Your task to perform on an android device: turn vacation reply on in the gmail app Image 0: 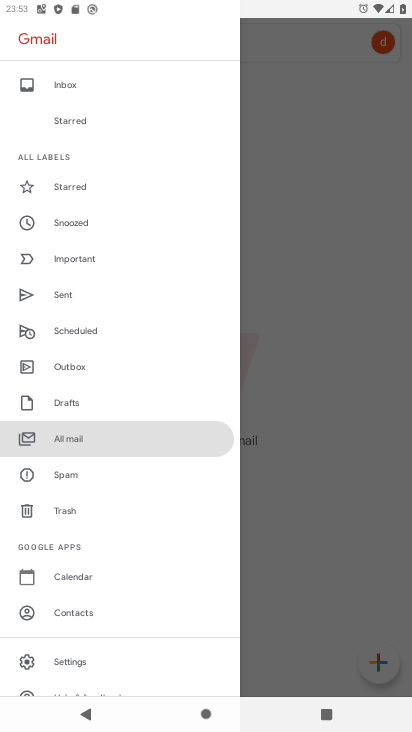
Step 0: press home button
Your task to perform on an android device: turn vacation reply on in the gmail app Image 1: 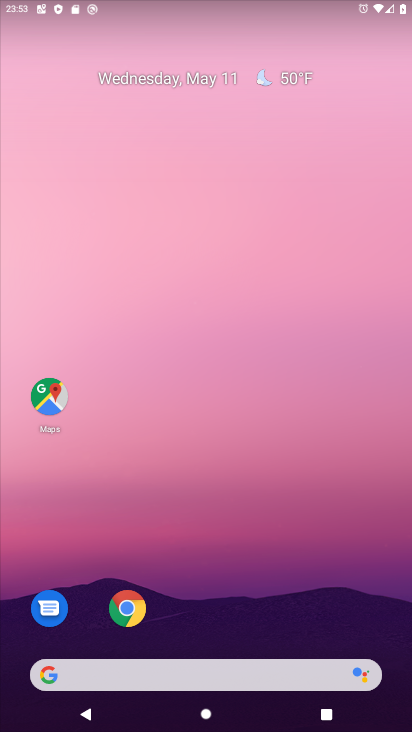
Step 1: drag from (203, 544) to (170, 6)
Your task to perform on an android device: turn vacation reply on in the gmail app Image 2: 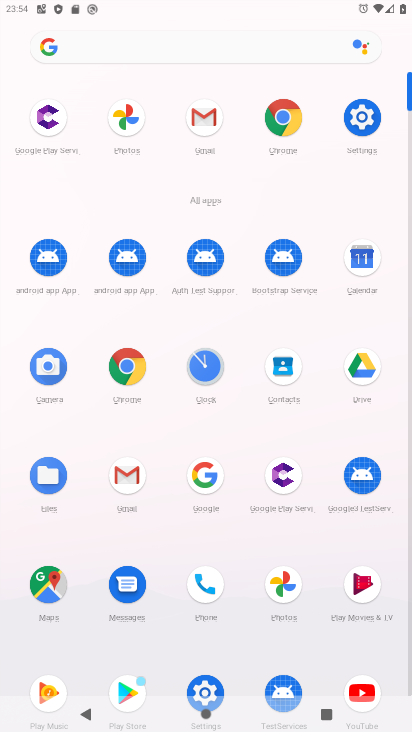
Step 2: click (125, 477)
Your task to perform on an android device: turn vacation reply on in the gmail app Image 3: 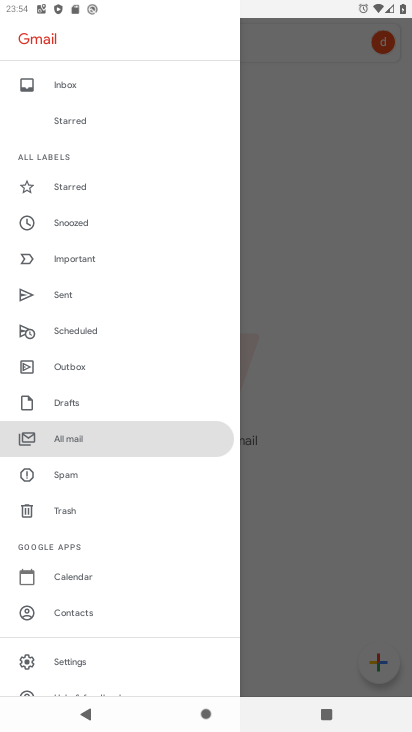
Step 3: drag from (103, 384) to (113, 272)
Your task to perform on an android device: turn vacation reply on in the gmail app Image 4: 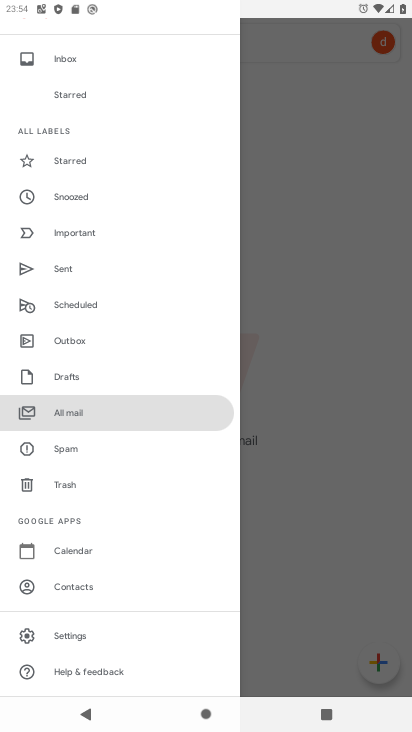
Step 4: click (68, 633)
Your task to perform on an android device: turn vacation reply on in the gmail app Image 5: 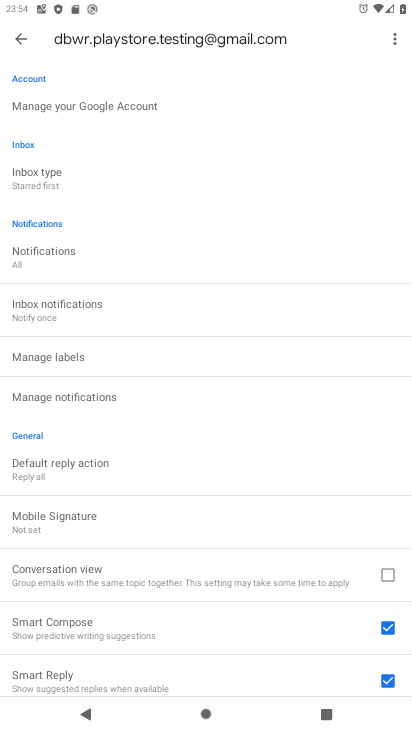
Step 5: drag from (77, 479) to (112, 407)
Your task to perform on an android device: turn vacation reply on in the gmail app Image 6: 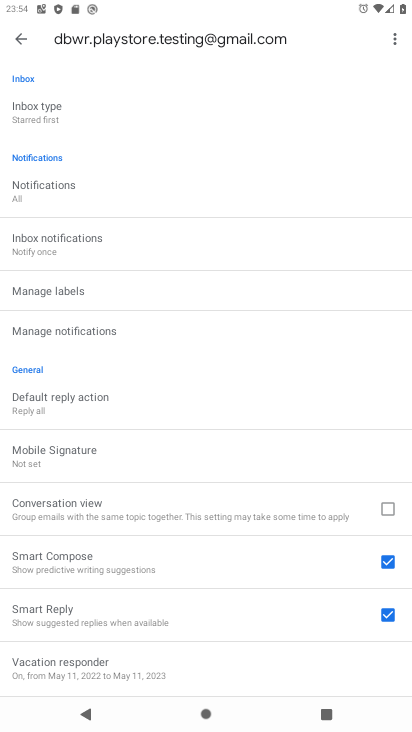
Step 6: drag from (99, 594) to (138, 483)
Your task to perform on an android device: turn vacation reply on in the gmail app Image 7: 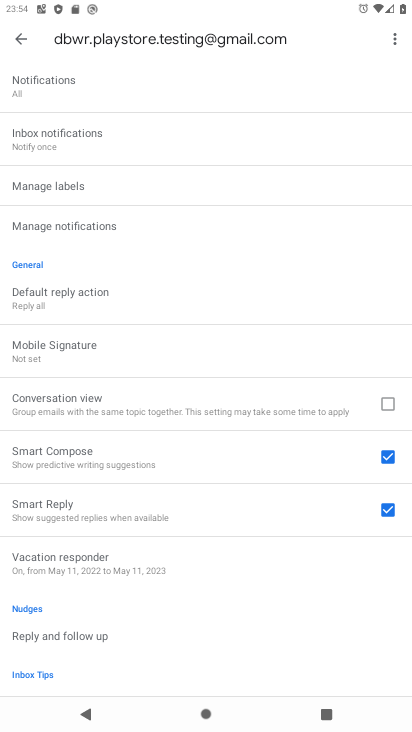
Step 7: click (73, 558)
Your task to perform on an android device: turn vacation reply on in the gmail app Image 8: 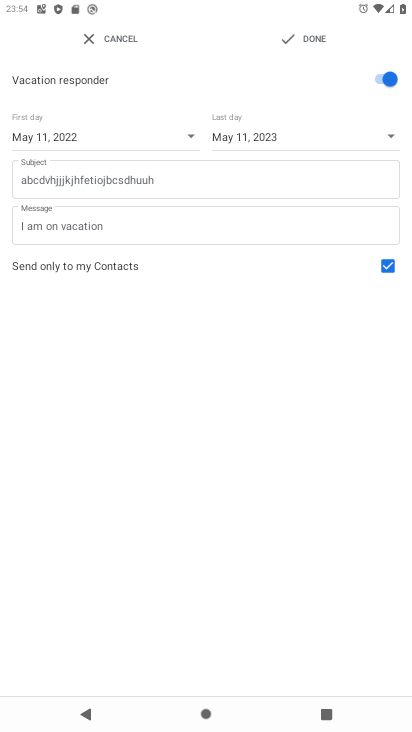
Step 8: task complete